Your task to perform on an android device: Open settings Image 0: 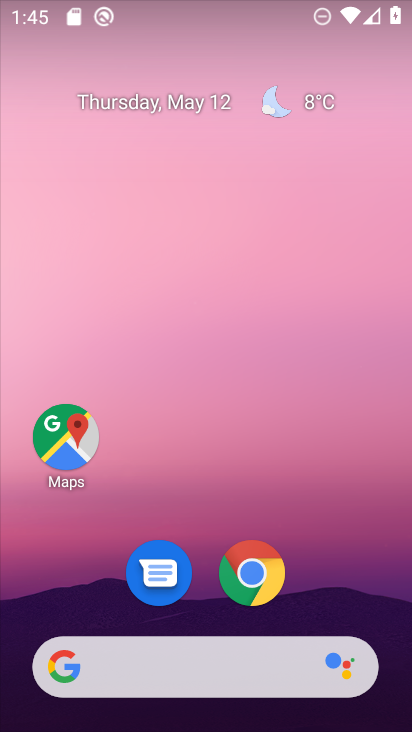
Step 0: drag from (367, 609) to (168, 153)
Your task to perform on an android device: Open settings Image 1: 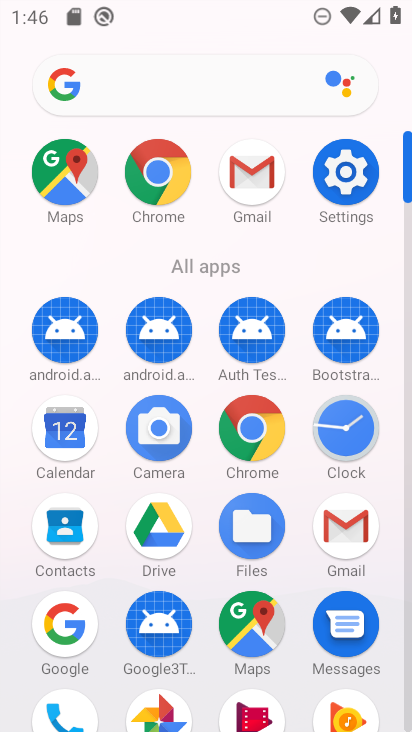
Step 1: click (348, 186)
Your task to perform on an android device: Open settings Image 2: 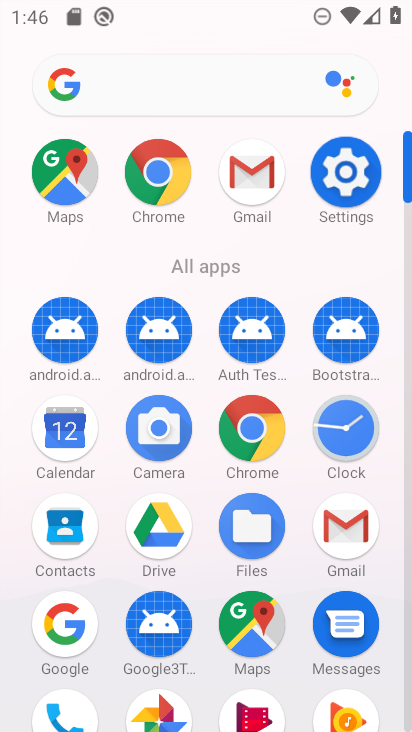
Step 2: click (348, 186)
Your task to perform on an android device: Open settings Image 3: 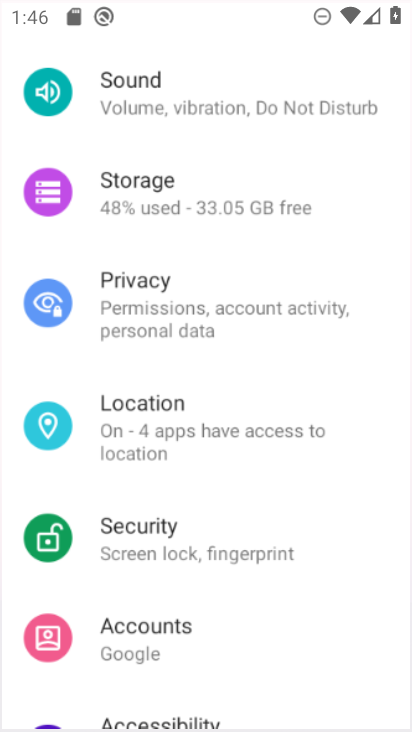
Step 3: click (348, 186)
Your task to perform on an android device: Open settings Image 4: 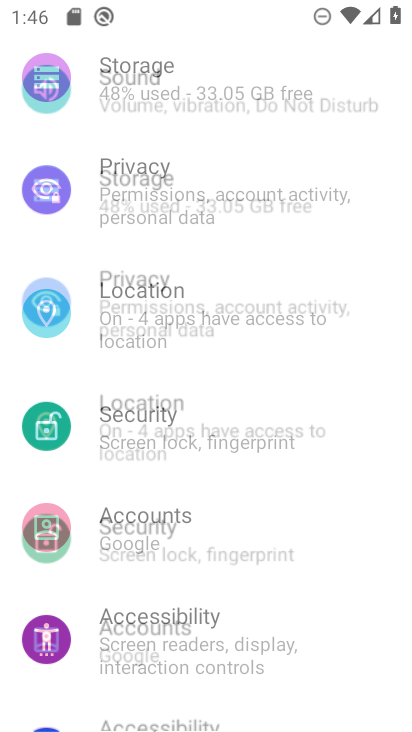
Step 4: click (348, 185)
Your task to perform on an android device: Open settings Image 5: 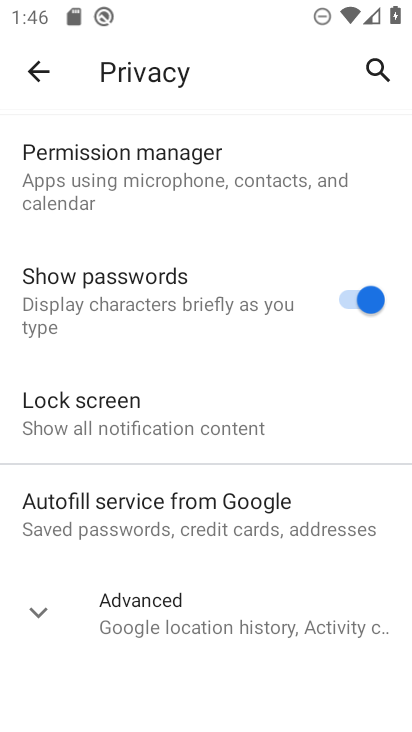
Step 5: drag from (202, 297) to (171, 84)
Your task to perform on an android device: Open settings Image 6: 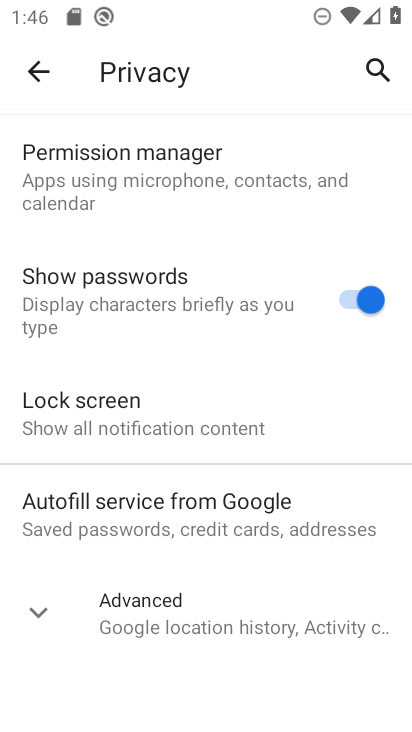
Step 6: click (32, 90)
Your task to perform on an android device: Open settings Image 7: 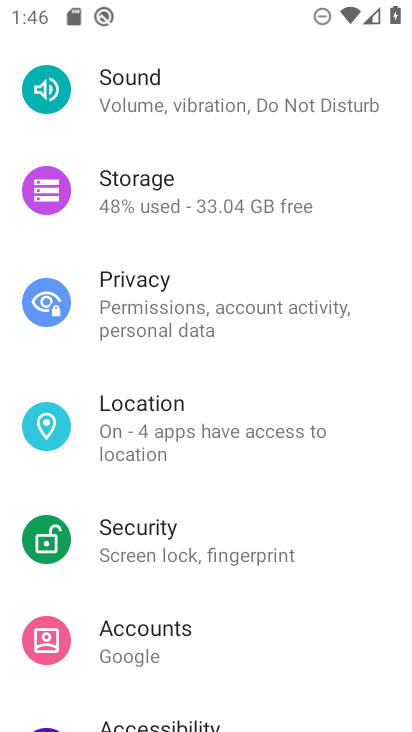
Step 7: task complete